Your task to perform on an android device: see sites visited before in the chrome app Image 0: 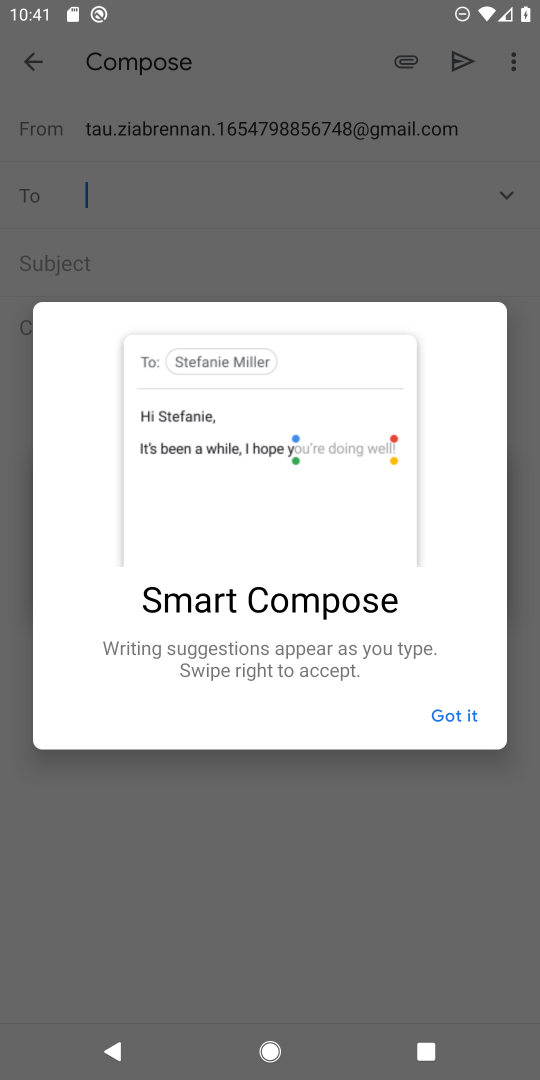
Step 0: press home button
Your task to perform on an android device: see sites visited before in the chrome app Image 1: 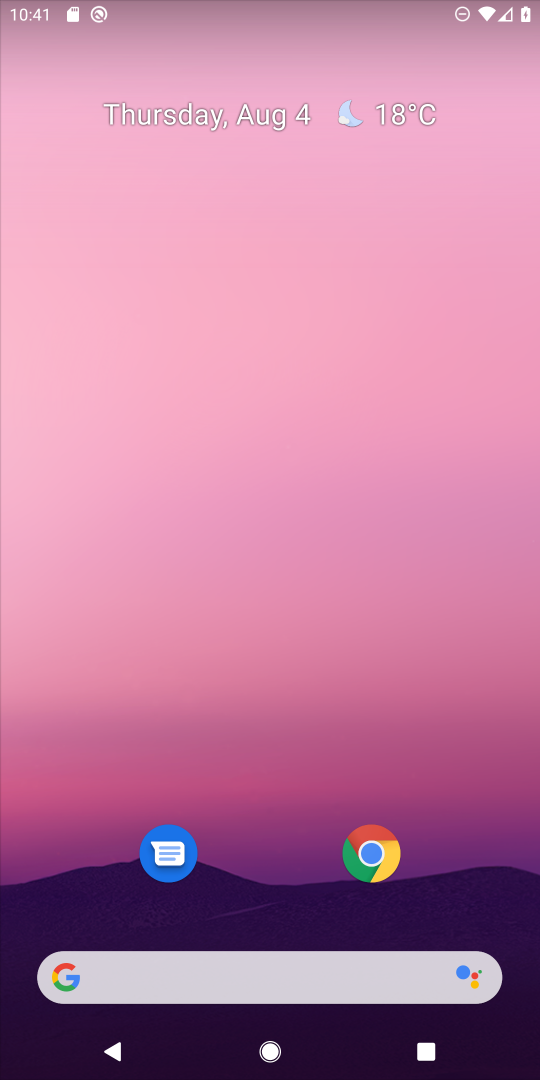
Step 1: drag from (275, 927) to (235, 110)
Your task to perform on an android device: see sites visited before in the chrome app Image 2: 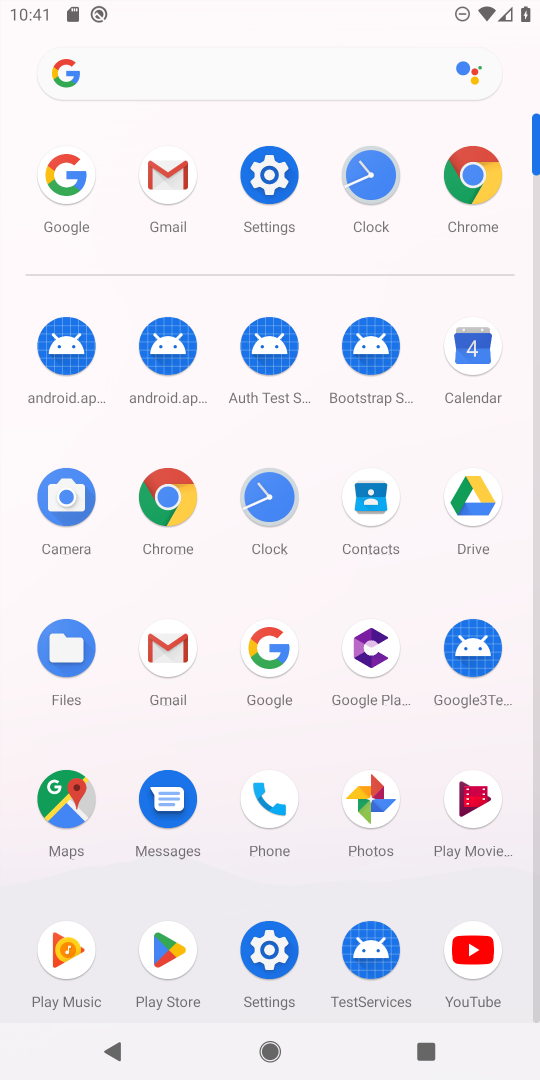
Step 2: click (160, 491)
Your task to perform on an android device: see sites visited before in the chrome app Image 3: 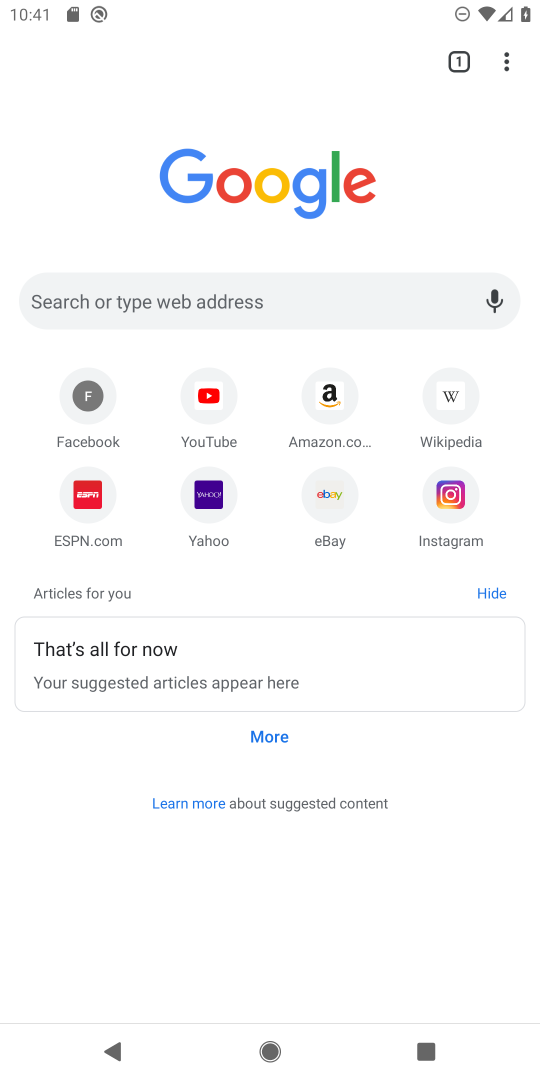
Step 3: click (461, 50)
Your task to perform on an android device: see sites visited before in the chrome app Image 4: 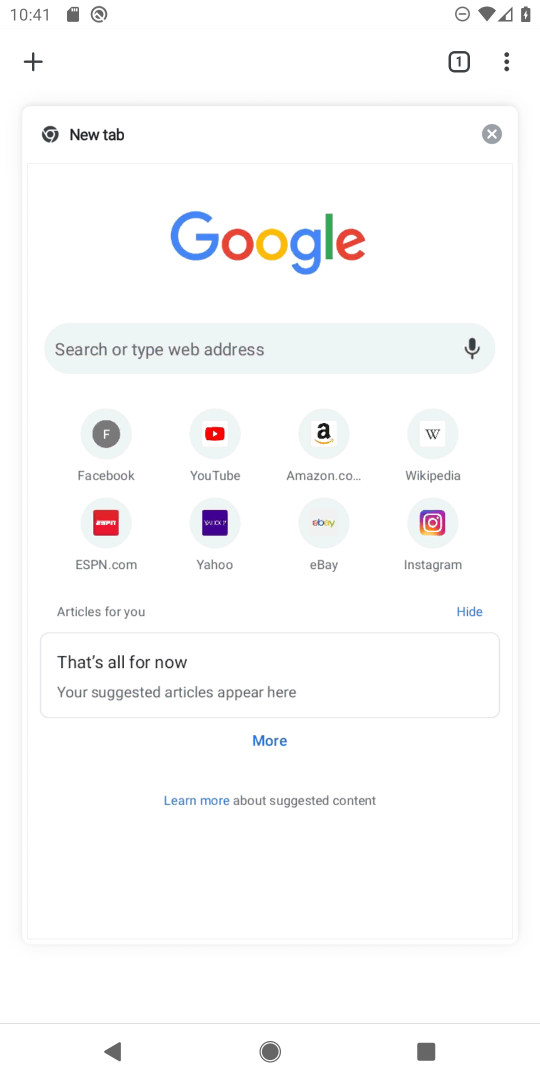
Step 4: click (419, 220)
Your task to perform on an android device: see sites visited before in the chrome app Image 5: 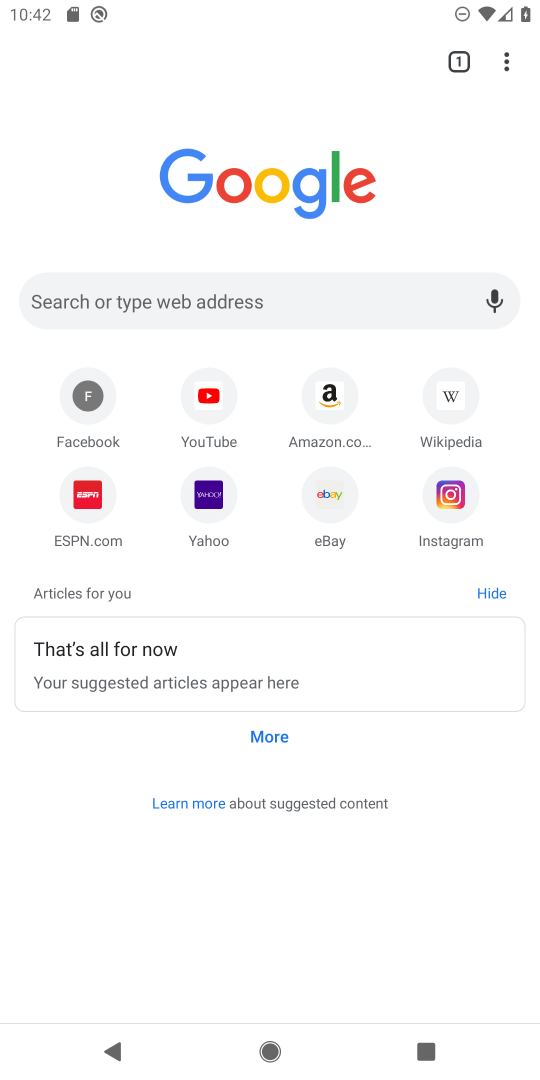
Step 5: click (448, 56)
Your task to perform on an android device: see sites visited before in the chrome app Image 6: 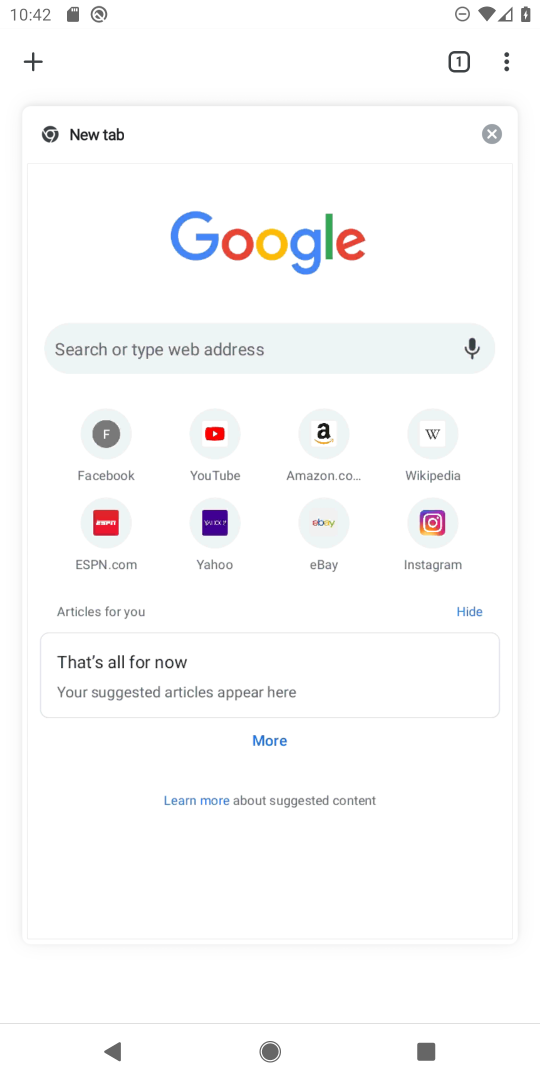
Step 6: task complete